Your task to perform on an android device: Open location settings Image 0: 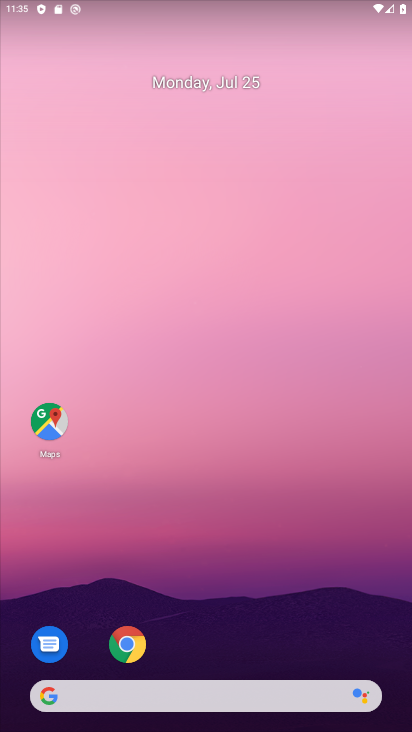
Step 0: click (3, 381)
Your task to perform on an android device: Open location settings Image 1: 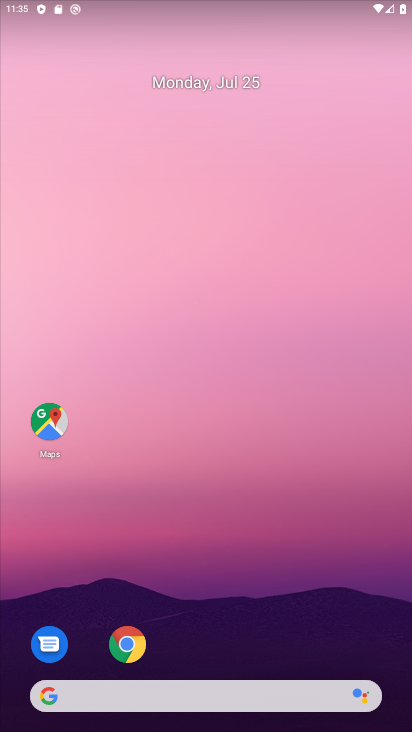
Step 1: drag from (309, 480) to (324, 42)
Your task to perform on an android device: Open location settings Image 2: 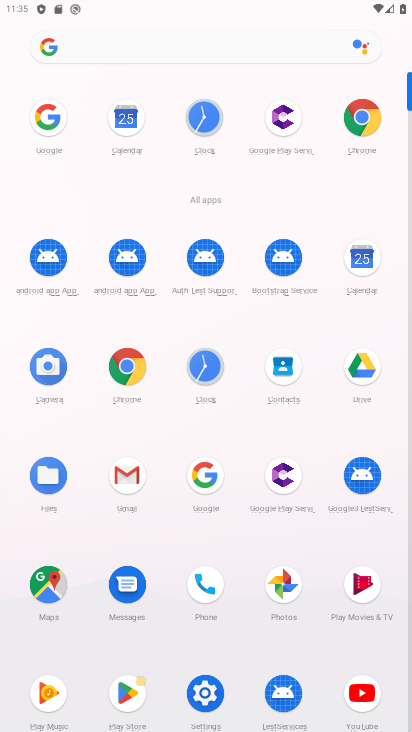
Step 2: click (207, 690)
Your task to perform on an android device: Open location settings Image 3: 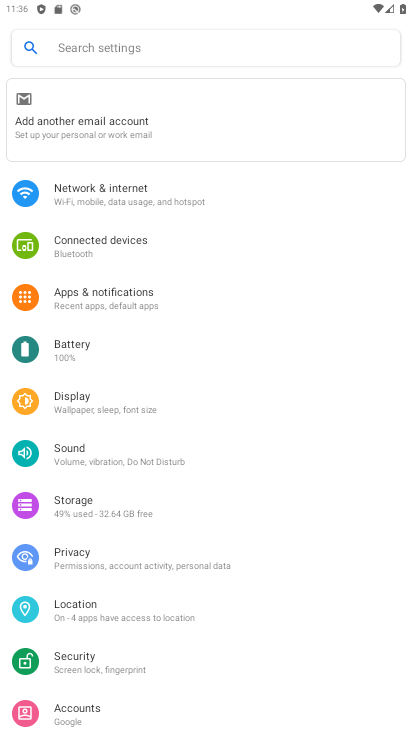
Step 3: click (113, 604)
Your task to perform on an android device: Open location settings Image 4: 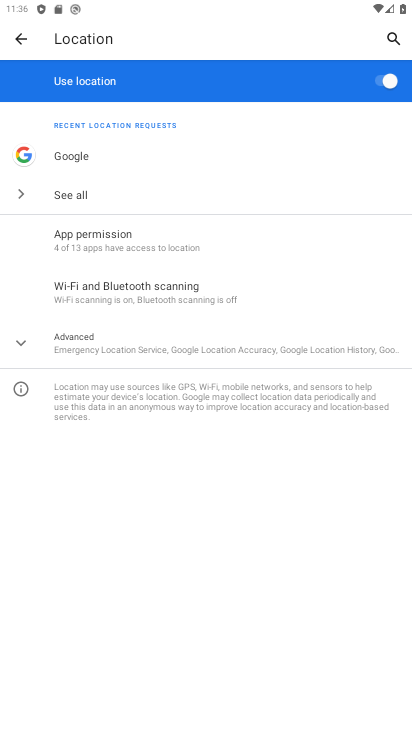
Step 4: task complete